Your task to perform on an android device: Go to Google maps Image 0: 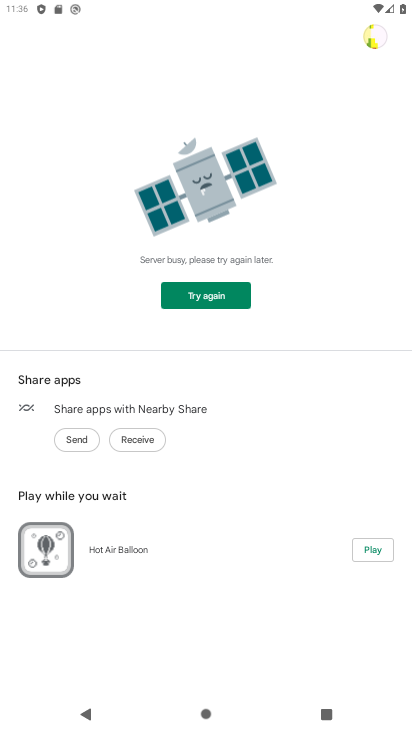
Step 0: press home button
Your task to perform on an android device: Go to Google maps Image 1: 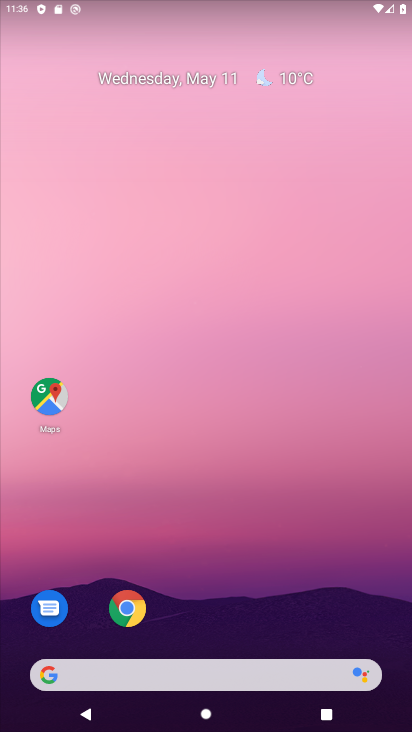
Step 1: click (51, 398)
Your task to perform on an android device: Go to Google maps Image 2: 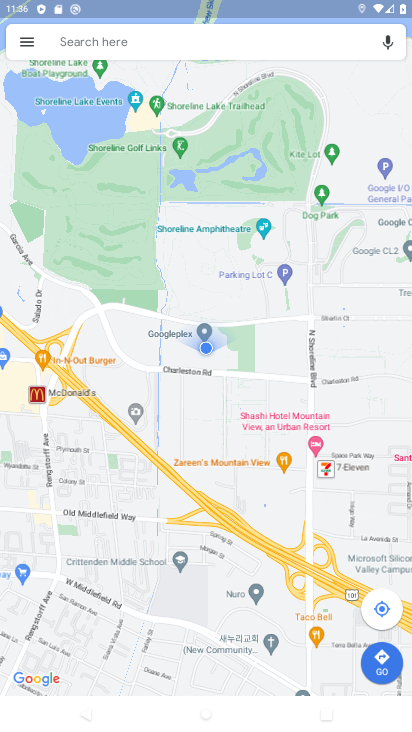
Step 2: task complete